Your task to perform on an android device: Open the Play Movies app and select the watchlist tab. Image 0: 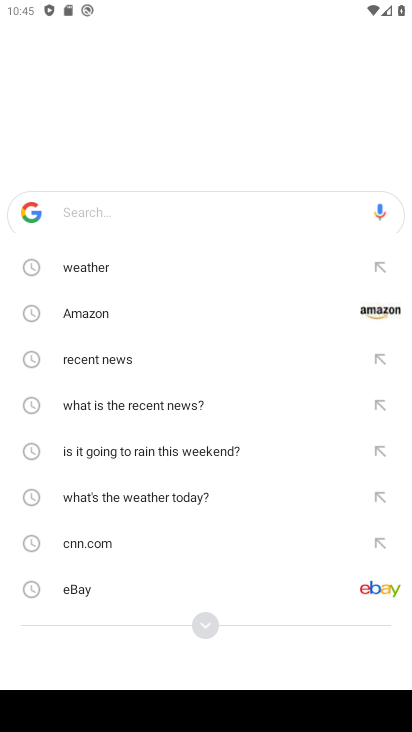
Step 0: press home button
Your task to perform on an android device: Open the Play Movies app and select the watchlist tab. Image 1: 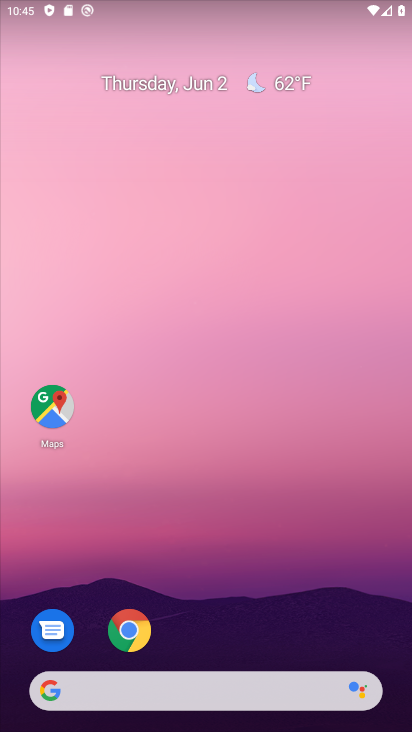
Step 1: drag from (138, 691) to (282, 271)
Your task to perform on an android device: Open the Play Movies app and select the watchlist tab. Image 2: 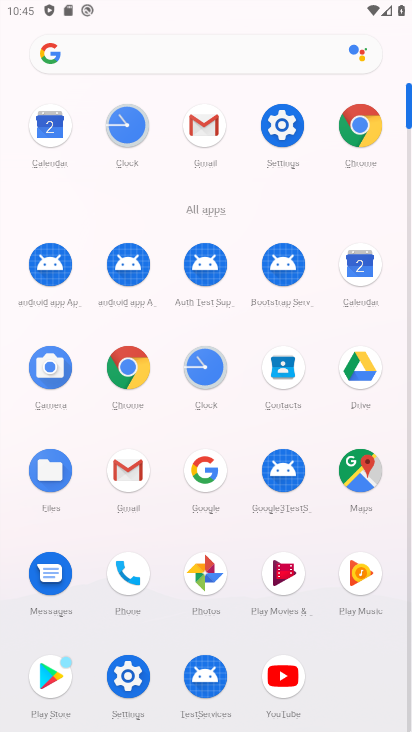
Step 2: click (284, 576)
Your task to perform on an android device: Open the Play Movies app and select the watchlist tab. Image 3: 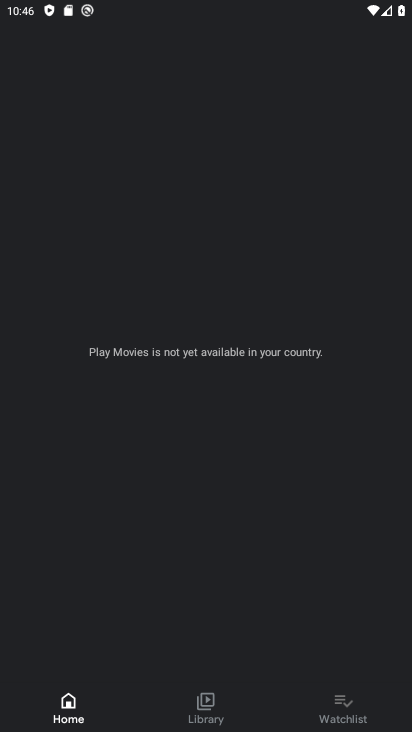
Step 3: click (332, 704)
Your task to perform on an android device: Open the Play Movies app and select the watchlist tab. Image 4: 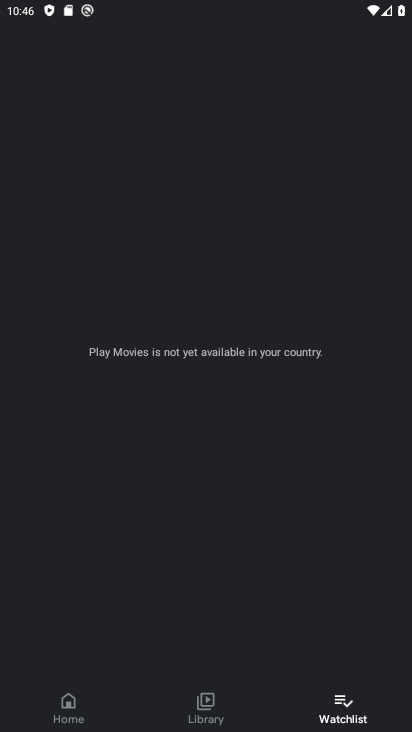
Step 4: task complete